Your task to perform on an android device: turn vacation reply on in the gmail app Image 0: 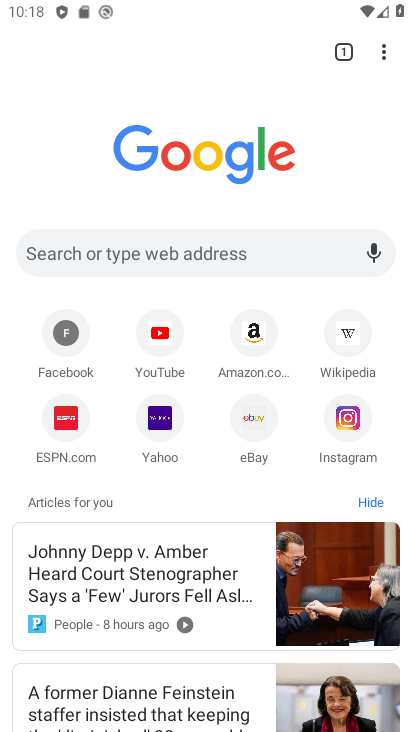
Step 0: task complete